Your task to perform on an android device: change the upload size in google photos Image 0: 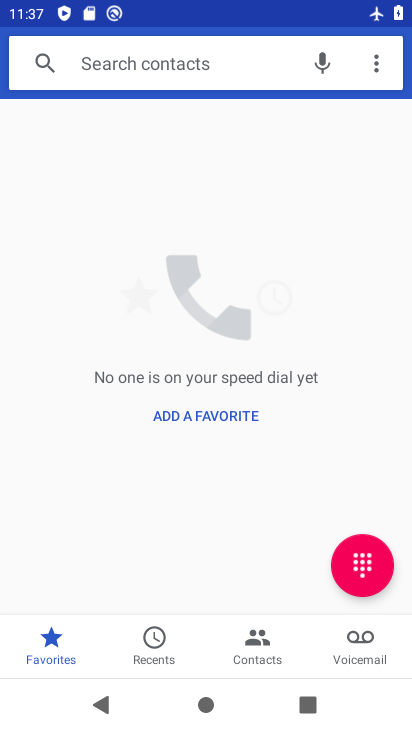
Step 0: press home button
Your task to perform on an android device: change the upload size in google photos Image 1: 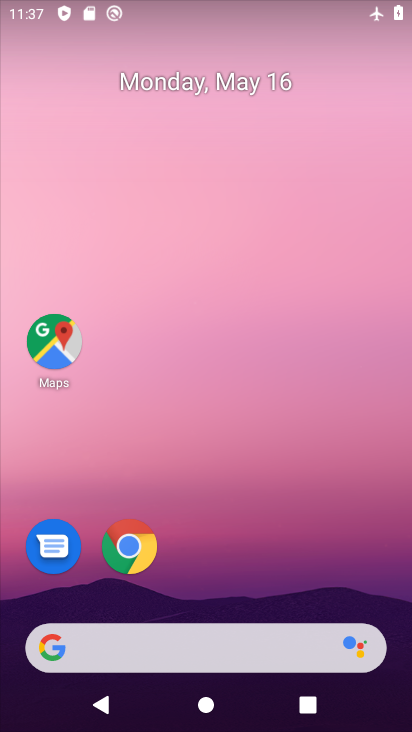
Step 1: drag from (396, 649) to (324, 165)
Your task to perform on an android device: change the upload size in google photos Image 2: 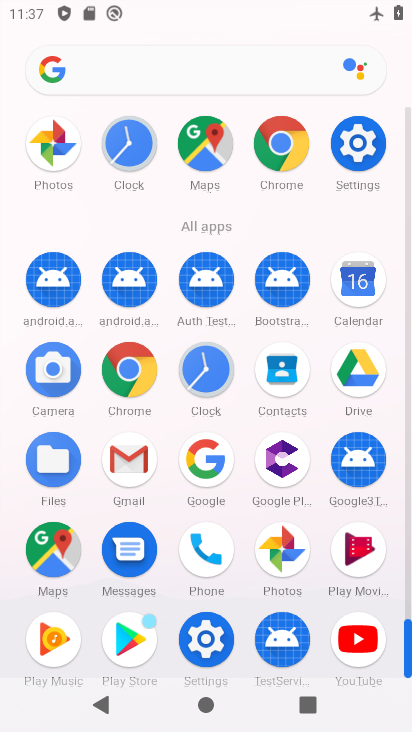
Step 2: click (408, 593)
Your task to perform on an android device: change the upload size in google photos Image 3: 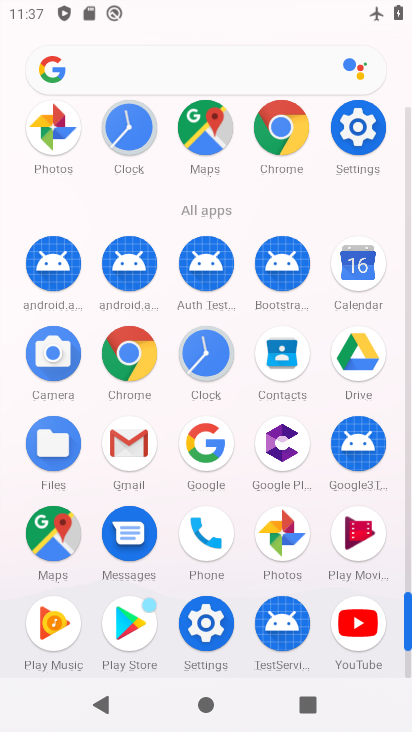
Step 3: click (281, 531)
Your task to perform on an android device: change the upload size in google photos Image 4: 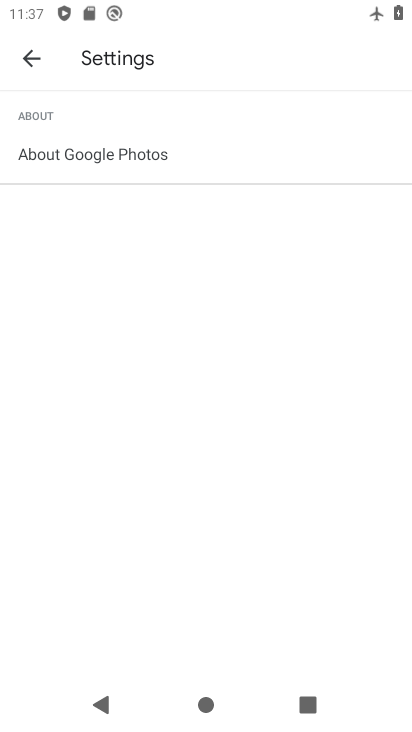
Step 4: press back button
Your task to perform on an android device: change the upload size in google photos Image 5: 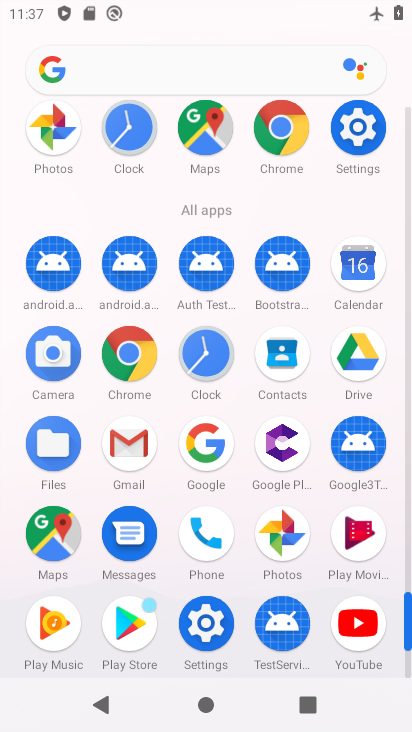
Step 5: click (282, 531)
Your task to perform on an android device: change the upload size in google photos Image 6: 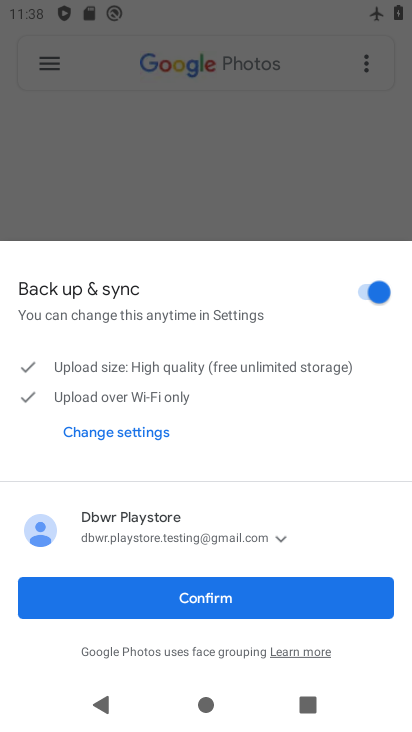
Step 6: click (190, 609)
Your task to perform on an android device: change the upload size in google photos Image 7: 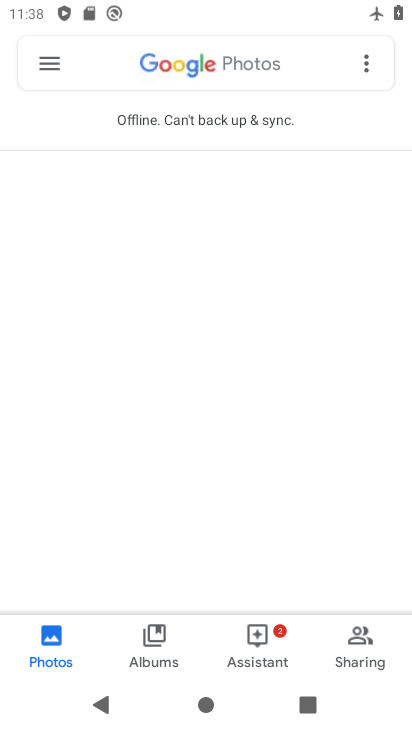
Step 7: click (55, 66)
Your task to perform on an android device: change the upload size in google photos Image 8: 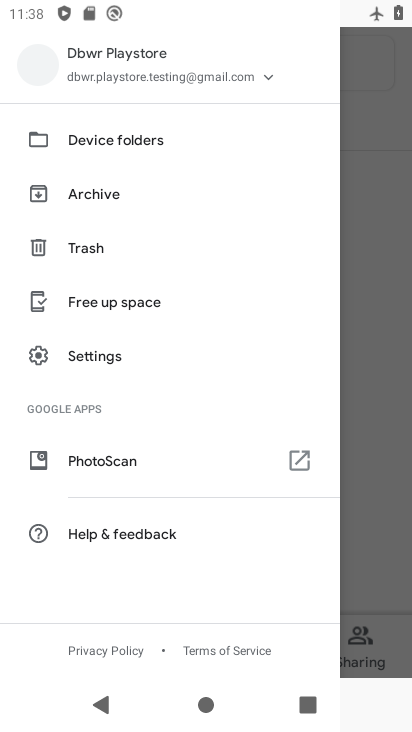
Step 8: click (108, 353)
Your task to perform on an android device: change the upload size in google photos Image 9: 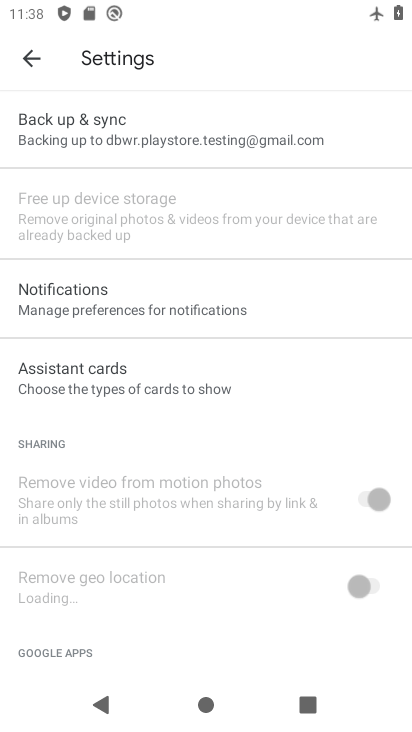
Step 9: click (130, 123)
Your task to perform on an android device: change the upload size in google photos Image 10: 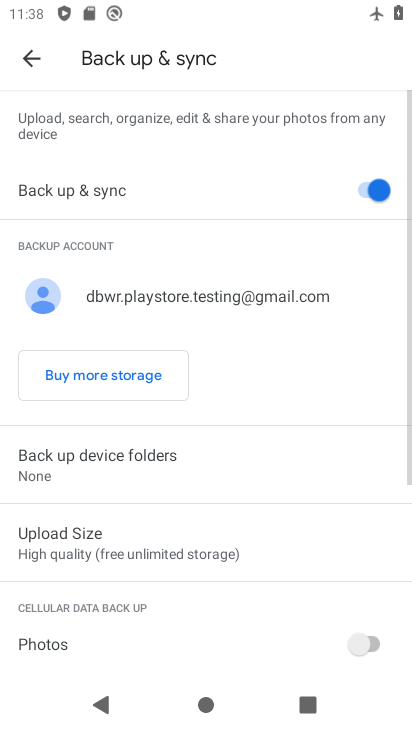
Step 10: click (78, 532)
Your task to perform on an android device: change the upload size in google photos Image 11: 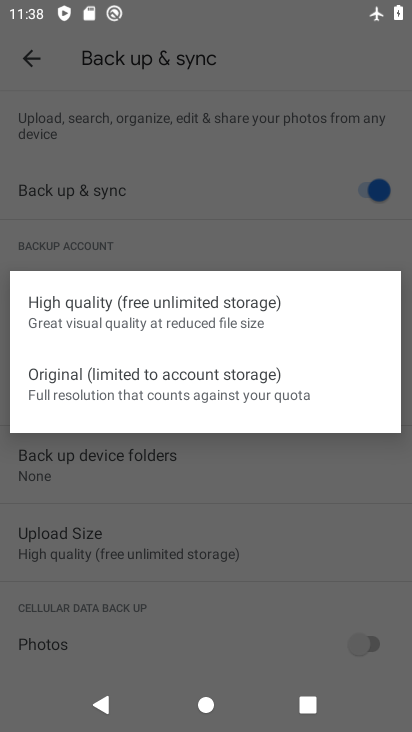
Step 11: click (140, 374)
Your task to perform on an android device: change the upload size in google photos Image 12: 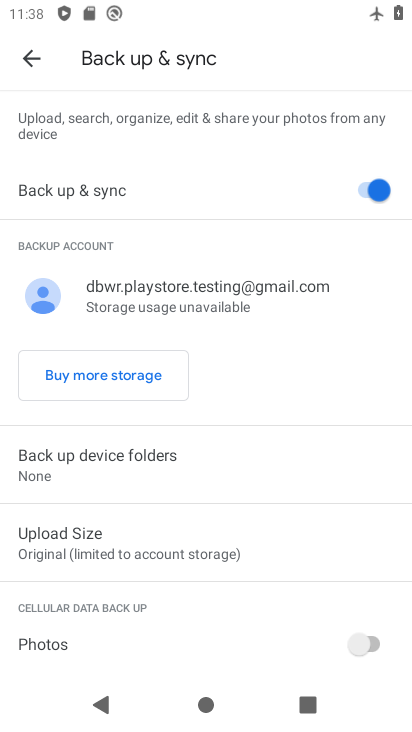
Step 12: task complete